Your task to perform on an android device: Go to battery settings Image 0: 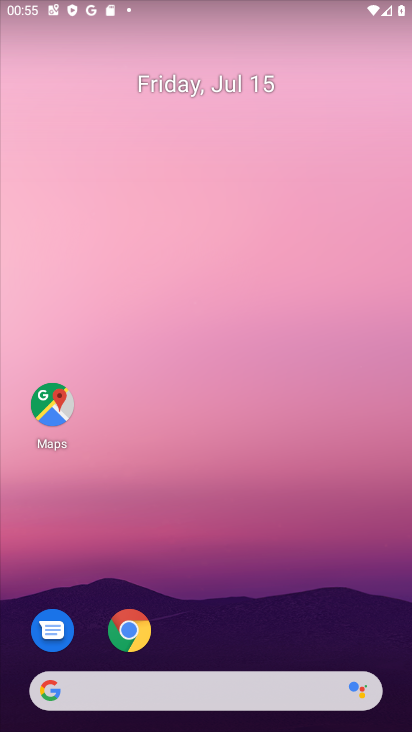
Step 0: drag from (262, 662) to (228, 194)
Your task to perform on an android device: Go to battery settings Image 1: 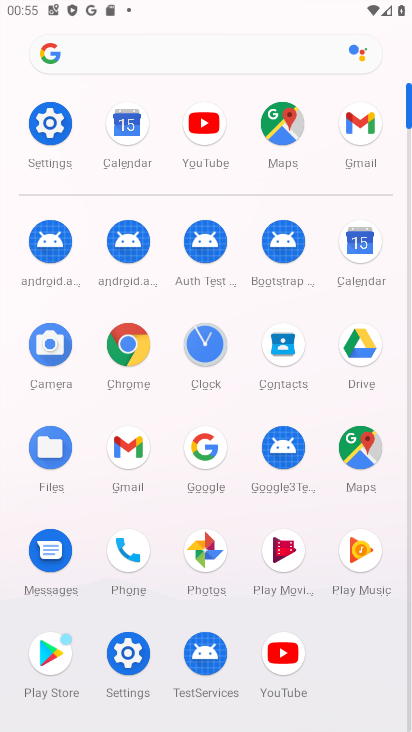
Step 1: click (60, 153)
Your task to perform on an android device: Go to battery settings Image 2: 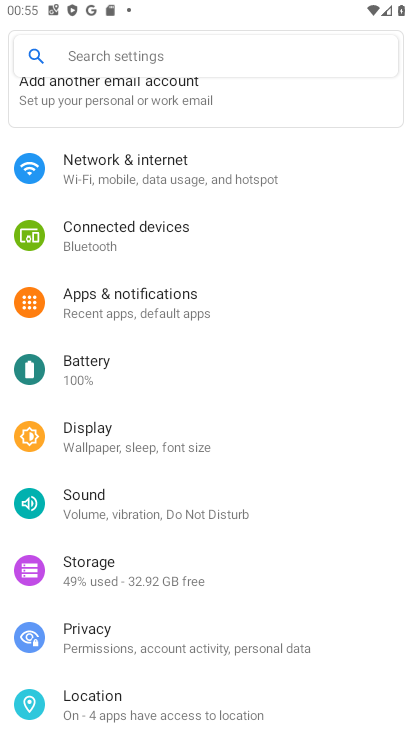
Step 2: click (87, 354)
Your task to perform on an android device: Go to battery settings Image 3: 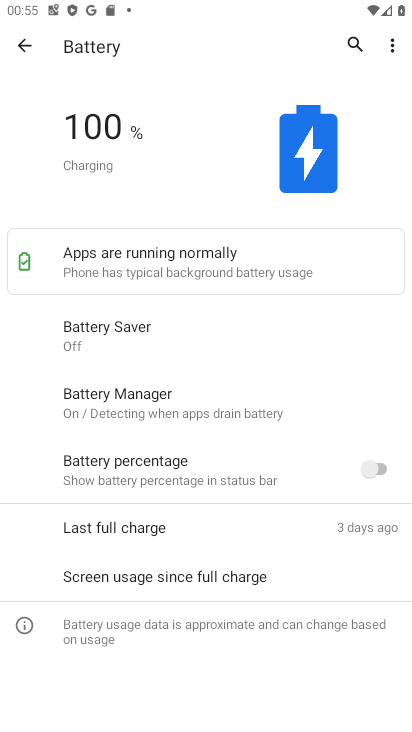
Step 3: task complete